Your task to perform on an android device: toggle pop-ups in chrome Image 0: 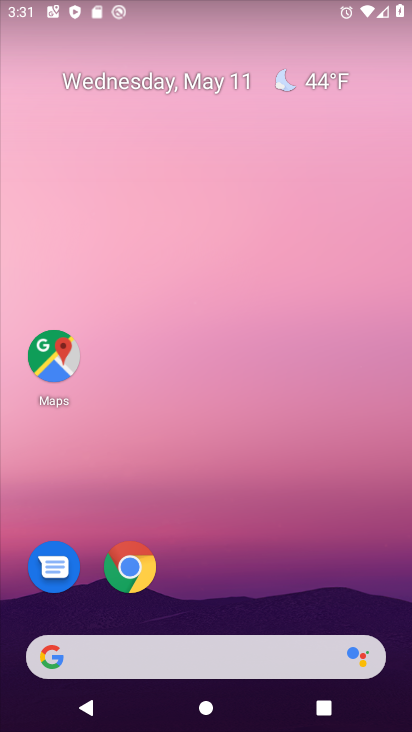
Step 0: drag from (272, 544) to (258, 54)
Your task to perform on an android device: toggle pop-ups in chrome Image 1: 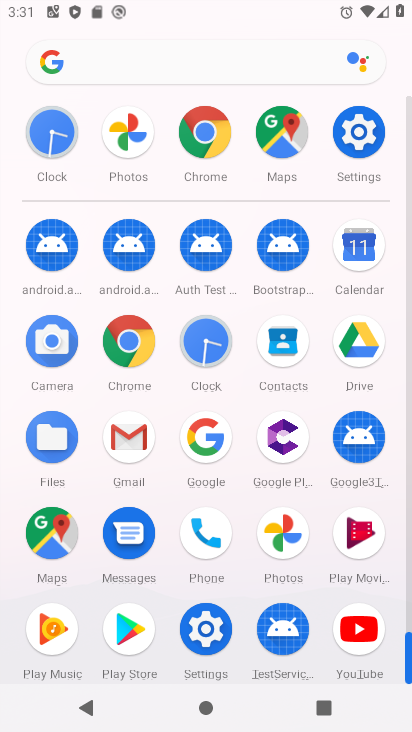
Step 1: drag from (5, 568) to (16, 213)
Your task to perform on an android device: toggle pop-ups in chrome Image 2: 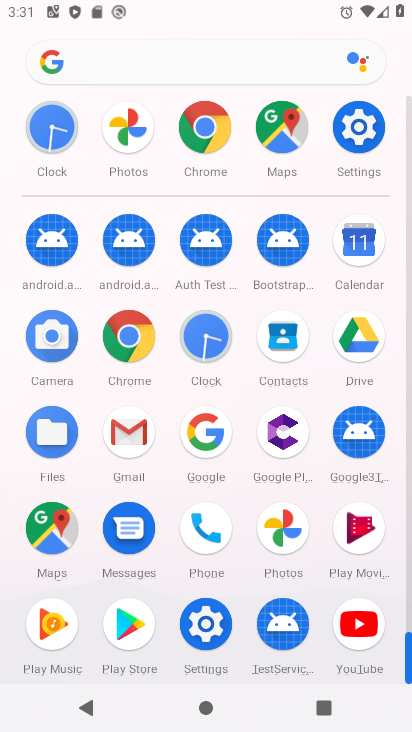
Step 2: click (129, 334)
Your task to perform on an android device: toggle pop-ups in chrome Image 3: 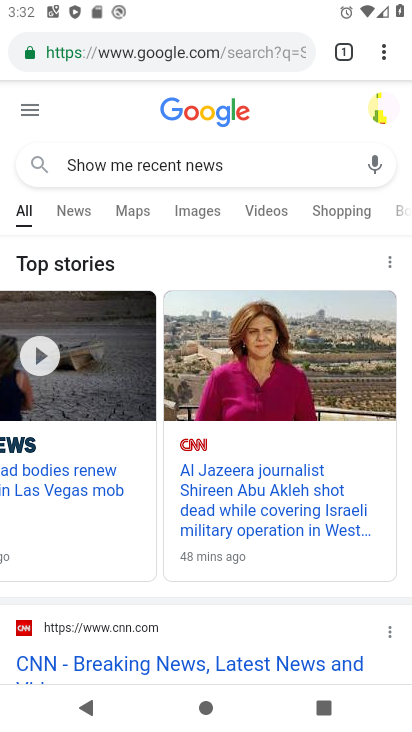
Step 3: drag from (381, 52) to (233, 600)
Your task to perform on an android device: toggle pop-ups in chrome Image 4: 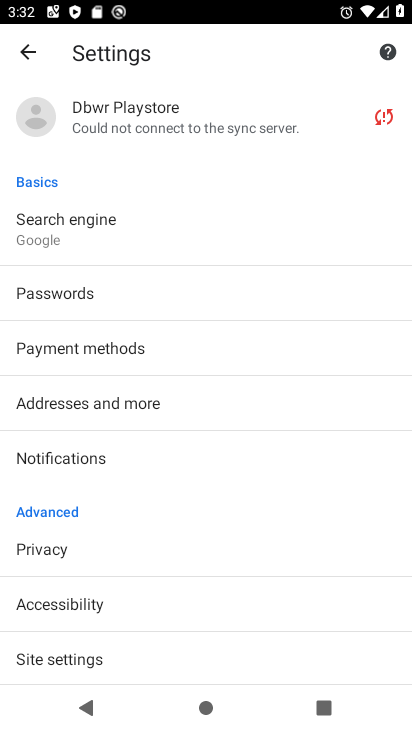
Step 4: drag from (234, 515) to (235, 249)
Your task to perform on an android device: toggle pop-ups in chrome Image 5: 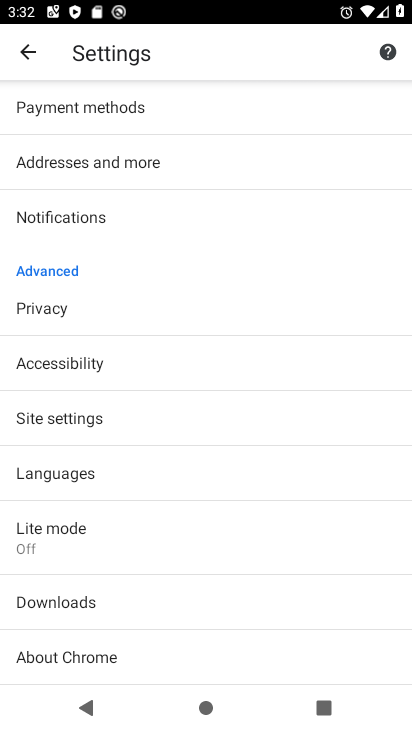
Step 5: drag from (241, 323) to (244, 208)
Your task to perform on an android device: toggle pop-ups in chrome Image 6: 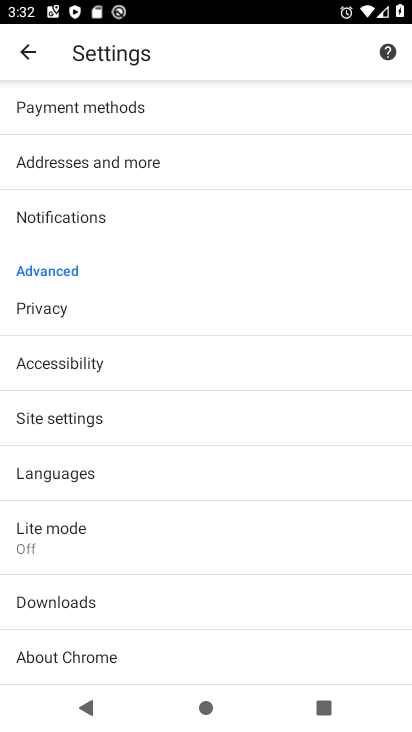
Step 6: click (107, 418)
Your task to perform on an android device: toggle pop-ups in chrome Image 7: 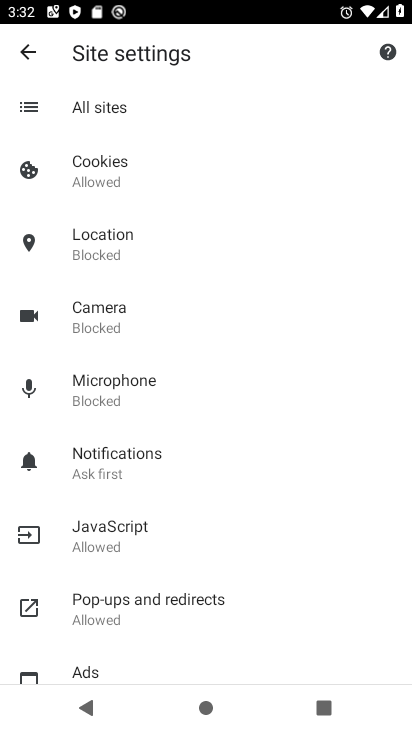
Step 7: click (165, 608)
Your task to perform on an android device: toggle pop-ups in chrome Image 8: 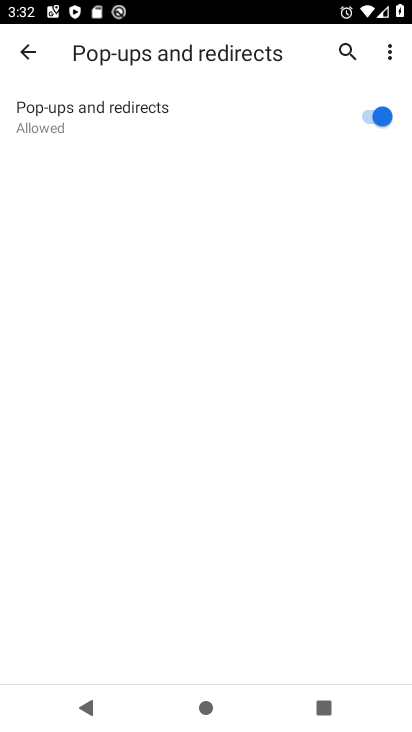
Step 8: task complete